Your task to perform on an android device: Add logitech g910 to the cart on walmart.com, then select checkout. Image 0: 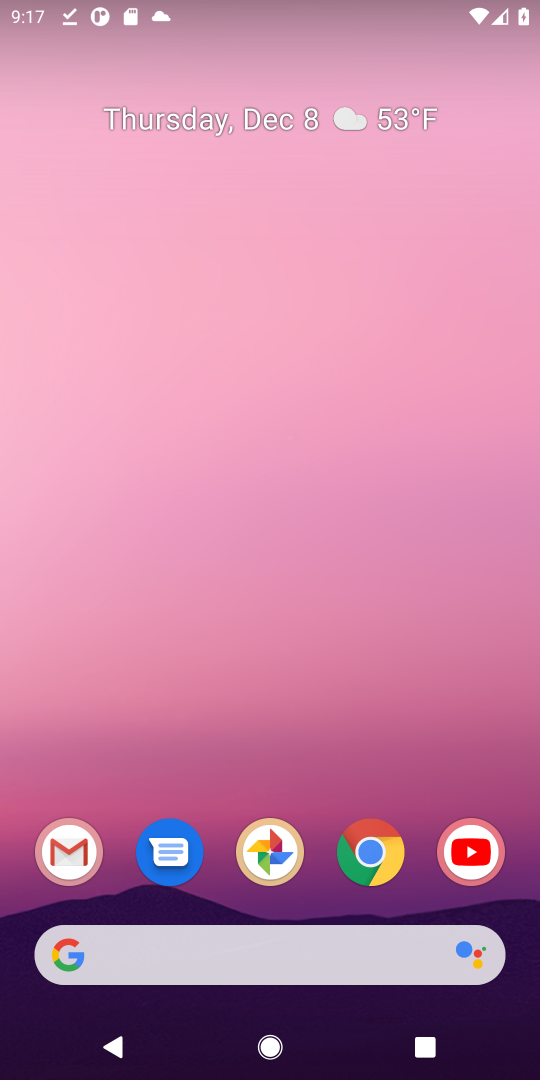
Step 0: click (284, 942)
Your task to perform on an android device: Add logitech g910 to the cart on walmart.com, then select checkout. Image 1: 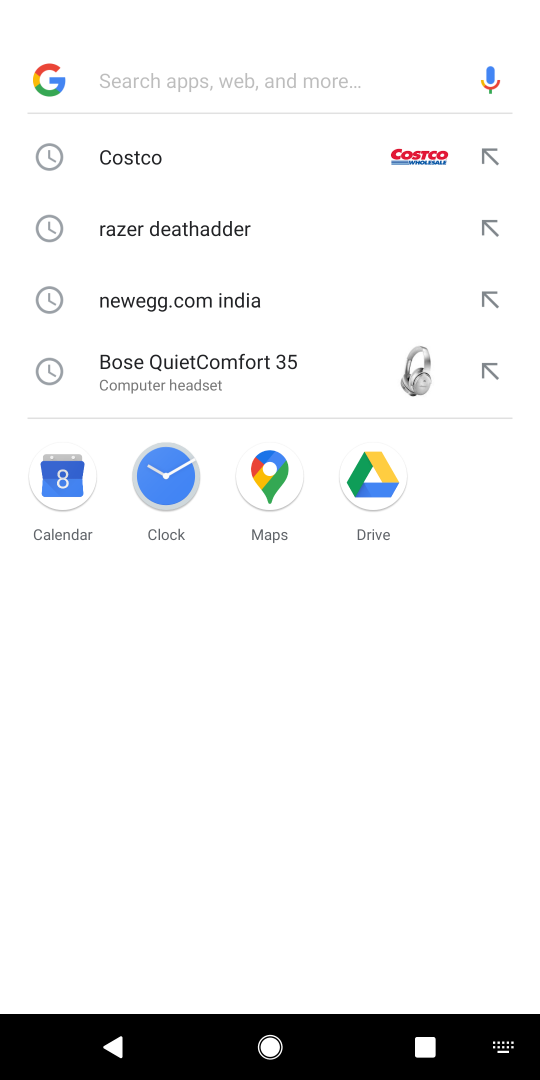
Step 1: type "walmart"
Your task to perform on an android device: Add logitech g910 to the cart on walmart.com, then select checkout. Image 2: 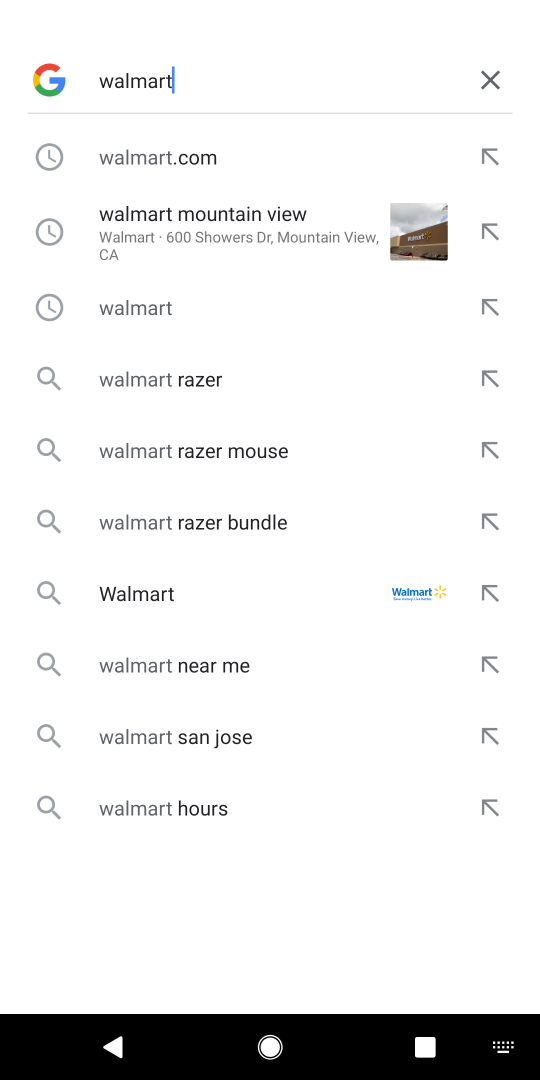
Step 2: click (151, 165)
Your task to perform on an android device: Add logitech g910 to the cart on walmart.com, then select checkout. Image 3: 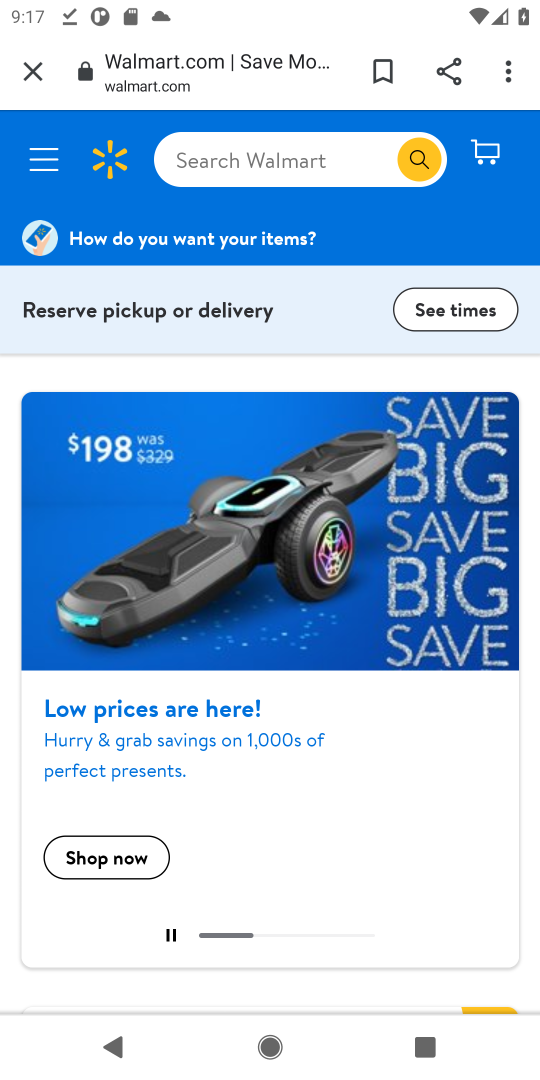
Step 3: click (279, 168)
Your task to perform on an android device: Add logitech g910 to the cart on walmart.com, then select checkout. Image 4: 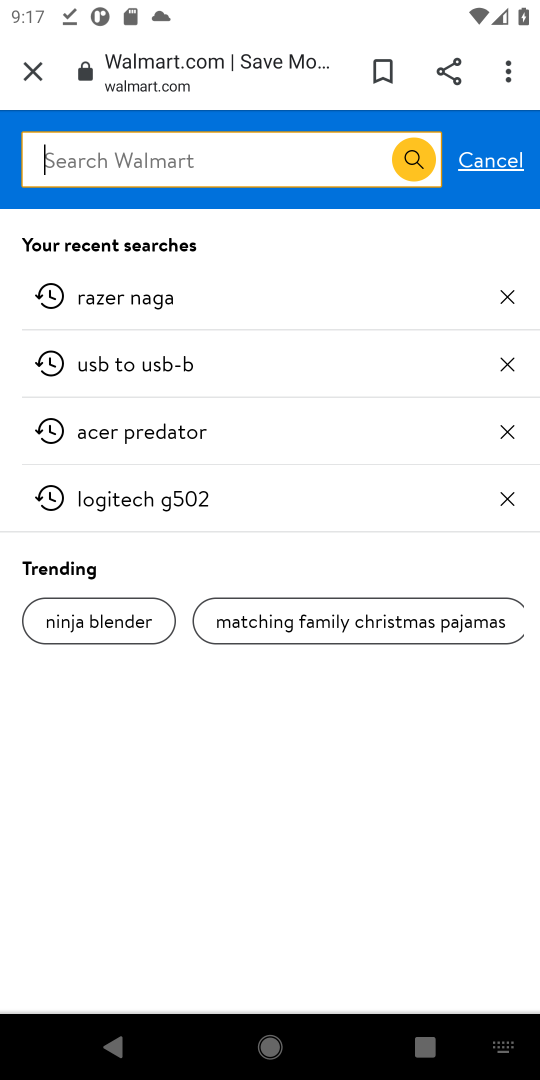
Step 4: type "logitech g910"
Your task to perform on an android device: Add logitech g910 to the cart on walmart.com, then select checkout. Image 5: 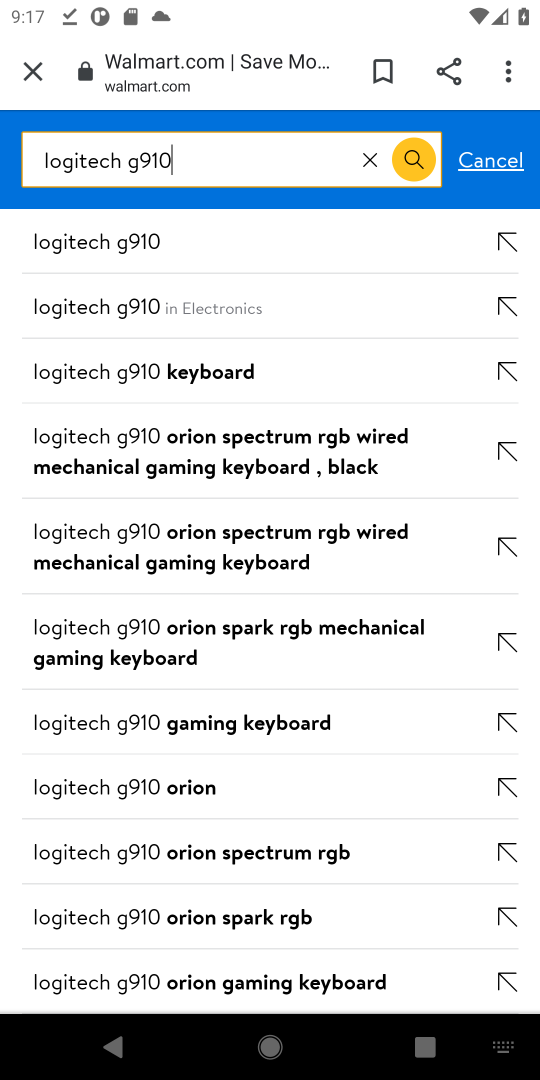
Step 5: click (154, 269)
Your task to perform on an android device: Add logitech g910 to the cart on walmart.com, then select checkout. Image 6: 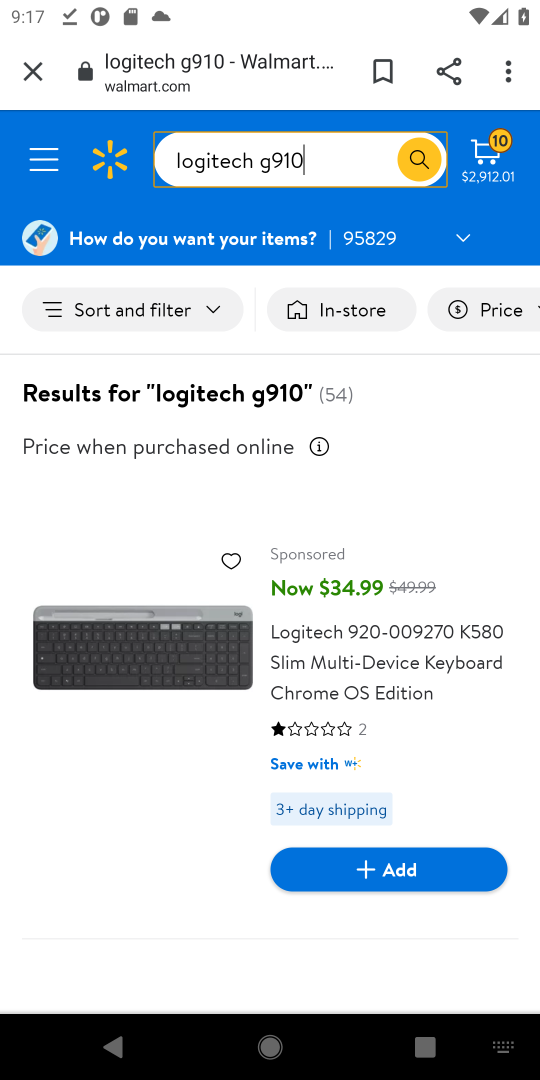
Step 6: click (358, 871)
Your task to perform on an android device: Add logitech g910 to the cart on walmart.com, then select checkout. Image 7: 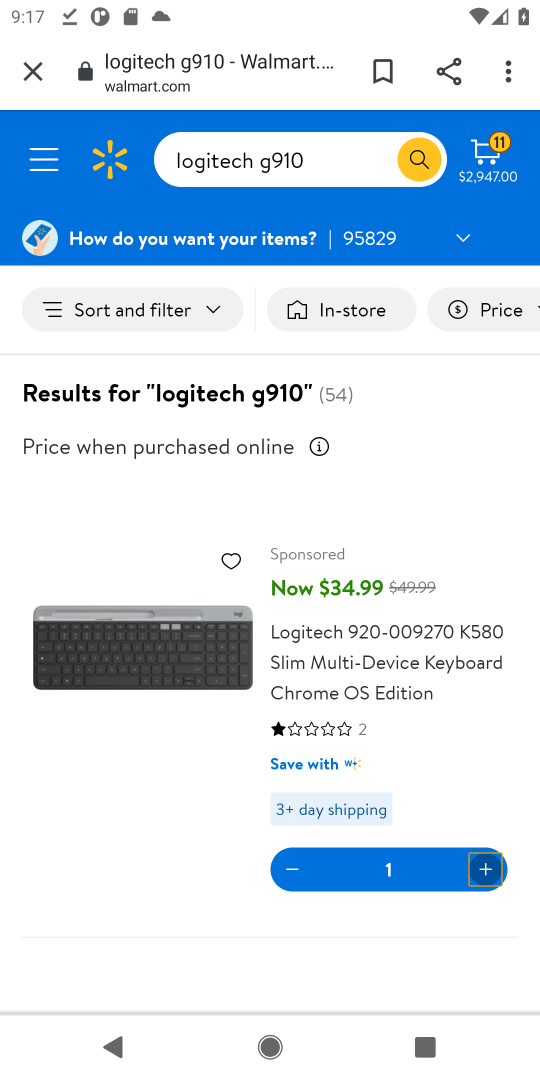
Step 7: task complete